Your task to perform on an android device: Open Yahoo.com Image 0: 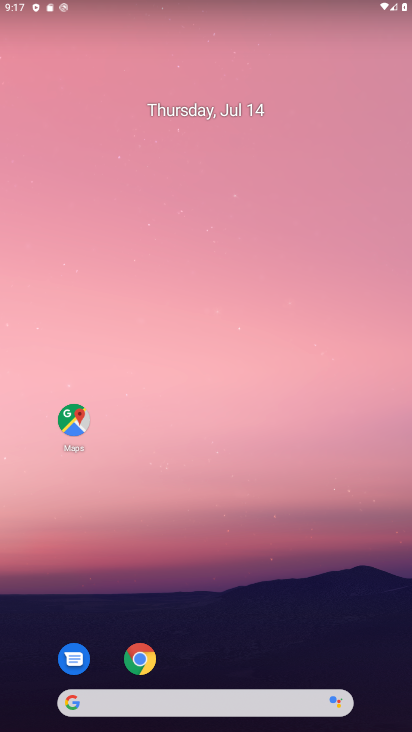
Step 0: drag from (309, 658) to (307, 103)
Your task to perform on an android device: Open Yahoo.com Image 1: 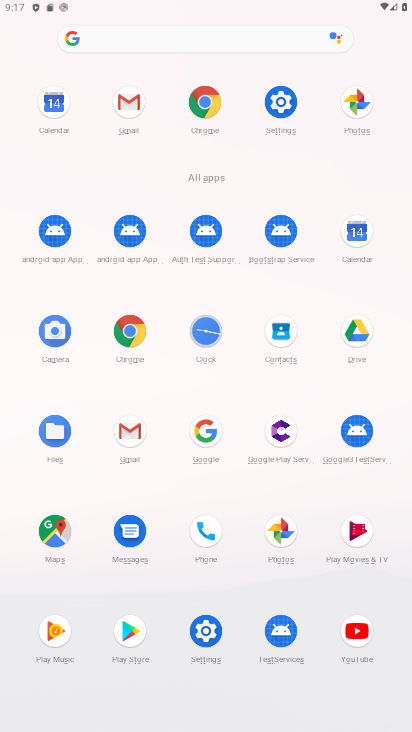
Step 1: click (141, 337)
Your task to perform on an android device: Open Yahoo.com Image 2: 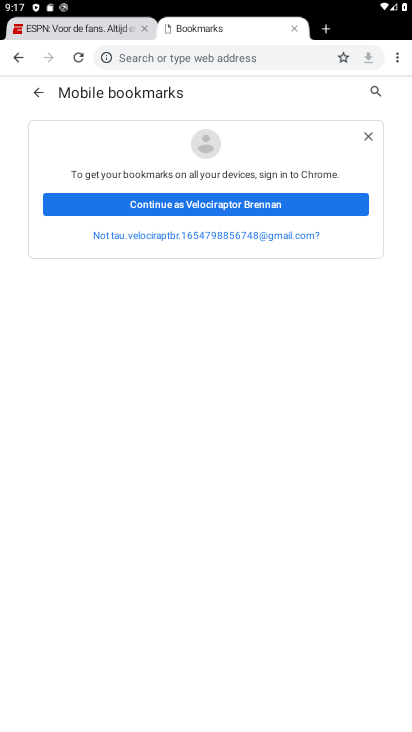
Step 2: click (178, 58)
Your task to perform on an android device: Open Yahoo.com Image 3: 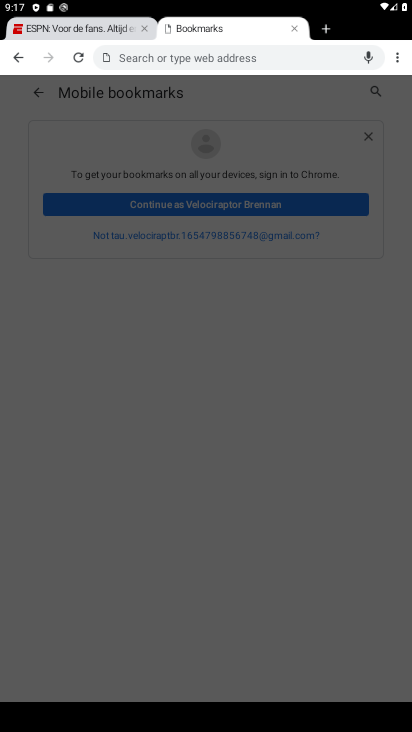
Step 3: type "yahoo.com"
Your task to perform on an android device: Open Yahoo.com Image 4: 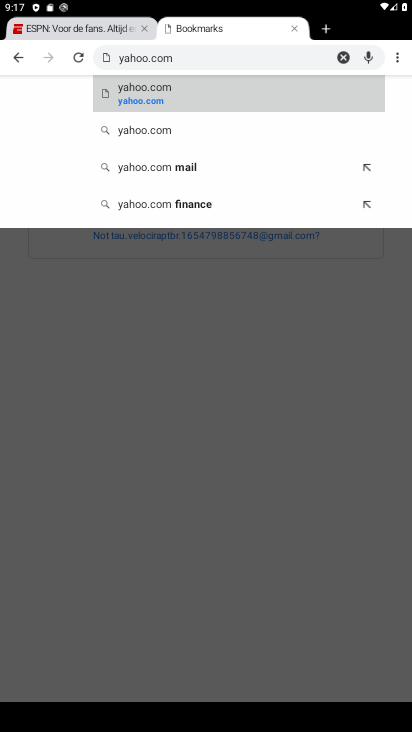
Step 4: click (187, 93)
Your task to perform on an android device: Open Yahoo.com Image 5: 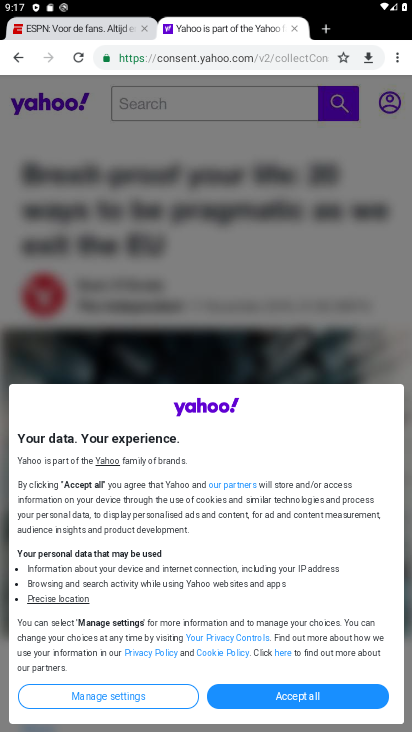
Step 5: task complete